Your task to perform on an android device: uninstall "Adobe Acrobat Reader: Edit PDF" Image 0: 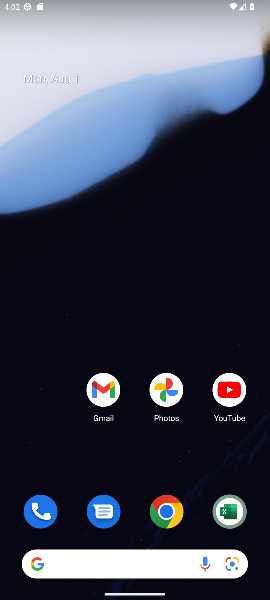
Step 0: drag from (137, 458) to (128, 56)
Your task to perform on an android device: uninstall "Adobe Acrobat Reader: Edit PDF" Image 1: 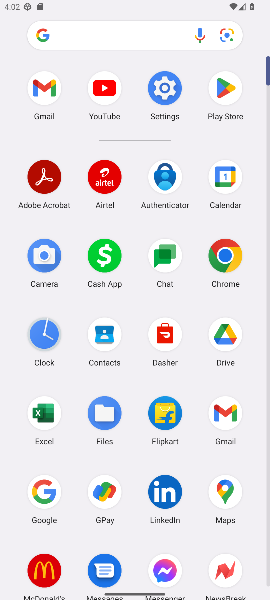
Step 1: click (224, 87)
Your task to perform on an android device: uninstall "Adobe Acrobat Reader: Edit PDF" Image 2: 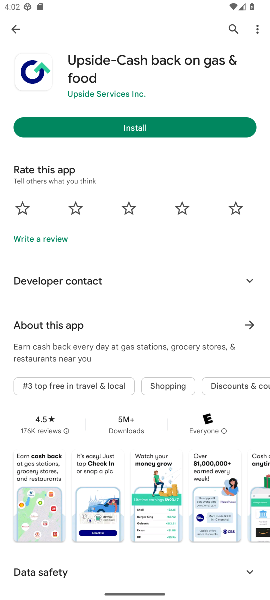
Step 2: click (13, 29)
Your task to perform on an android device: uninstall "Adobe Acrobat Reader: Edit PDF" Image 3: 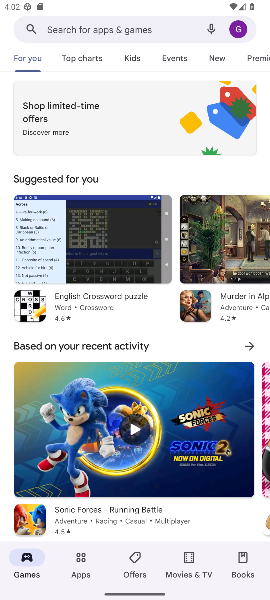
Step 3: click (80, 24)
Your task to perform on an android device: uninstall "Adobe Acrobat Reader: Edit PDF" Image 4: 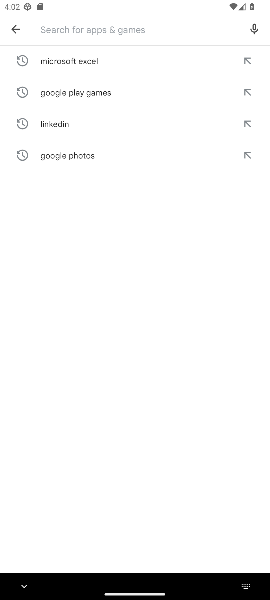
Step 4: type "Adobe Acrobat Reader: Edit PDF"
Your task to perform on an android device: uninstall "Adobe Acrobat Reader: Edit PDF" Image 5: 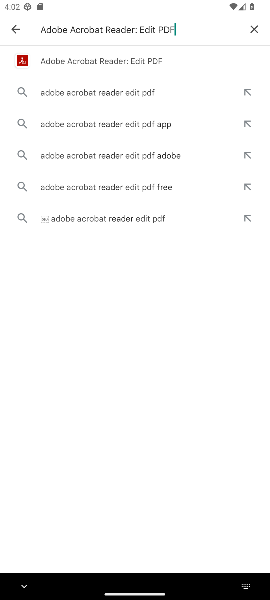
Step 5: click (148, 59)
Your task to perform on an android device: uninstall "Adobe Acrobat Reader: Edit PDF" Image 6: 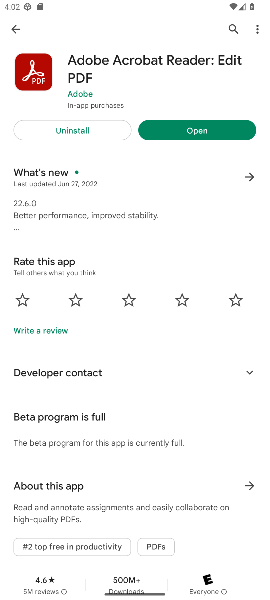
Step 6: click (60, 129)
Your task to perform on an android device: uninstall "Adobe Acrobat Reader: Edit PDF" Image 7: 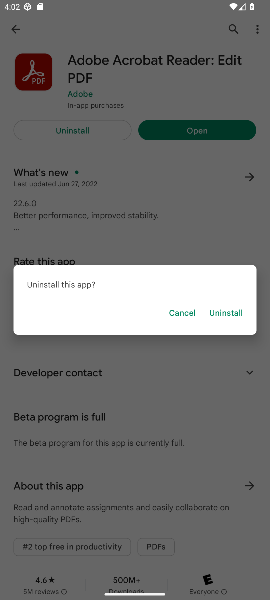
Step 7: click (233, 313)
Your task to perform on an android device: uninstall "Adobe Acrobat Reader: Edit PDF" Image 8: 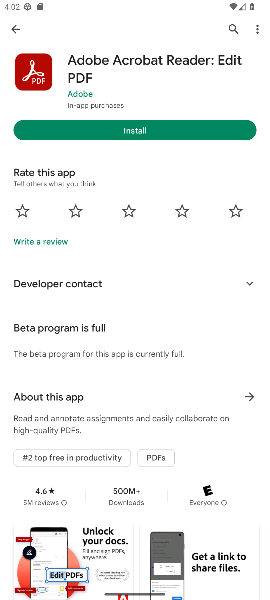
Step 8: task complete